Your task to perform on an android device: find which apps use the phone's location Image 0: 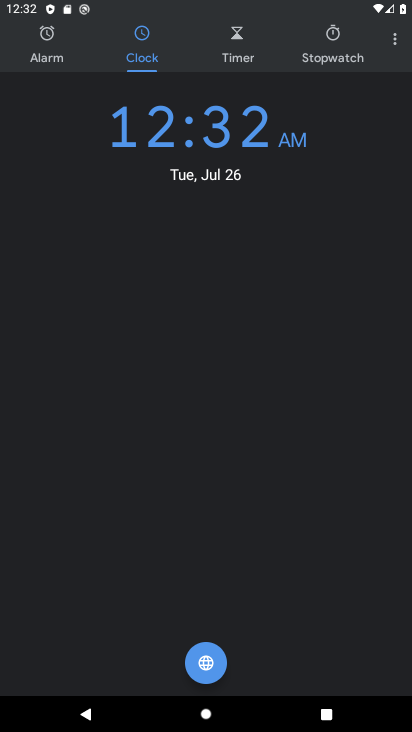
Step 0: press home button
Your task to perform on an android device: find which apps use the phone's location Image 1: 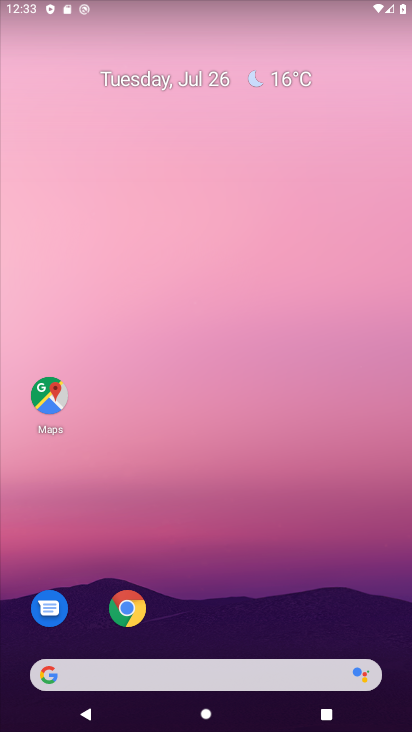
Step 1: task complete